Your task to perform on an android device: turn on location history Image 0: 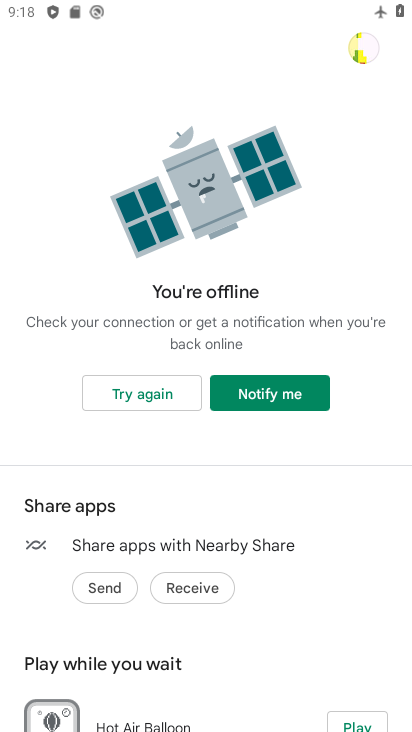
Step 0: press home button
Your task to perform on an android device: turn on location history Image 1: 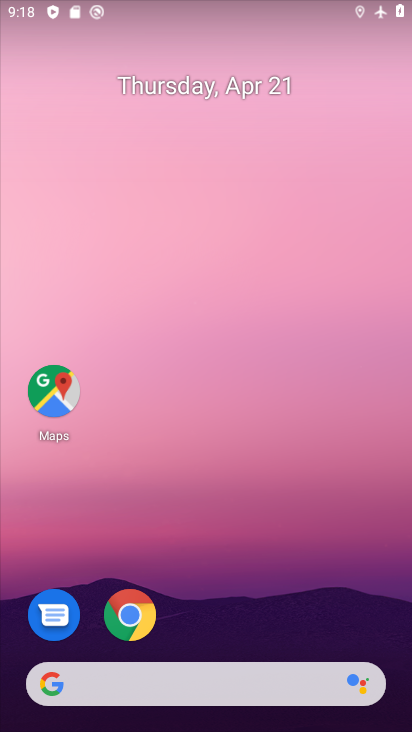
Step 1: drag from (199, 722) to (215, 228)
Your task to perform on an android device: turn on location history Image 2: 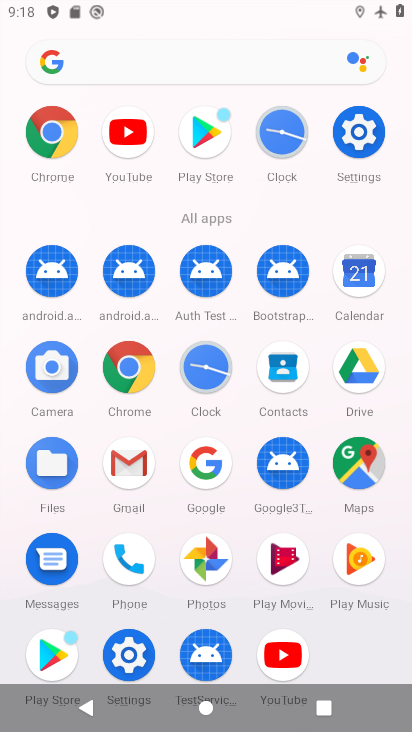
Step 2: click (365, 131)
Your task to perform on an android device: turn on location history Image 3: 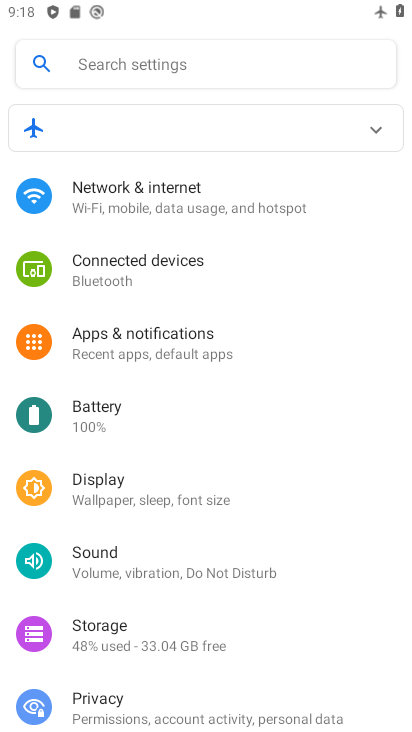
Step 3: drag from (143, 679) to (150, 326)
Your task to perform on an android device: turn on location history Image 4: 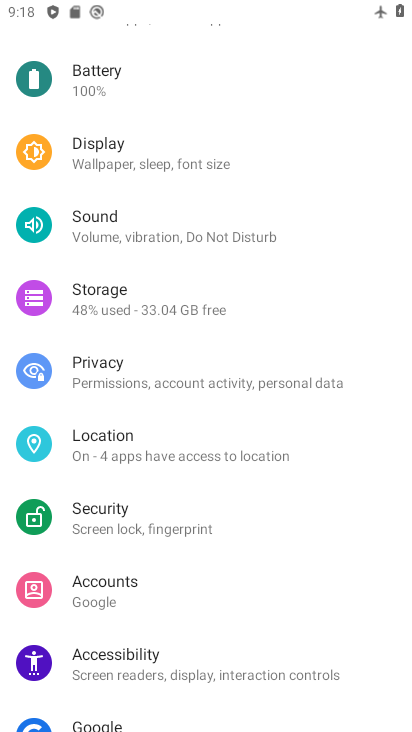
Step 4: click (98, 446)
Your task to perform on an android device: turn on location history Image 5: 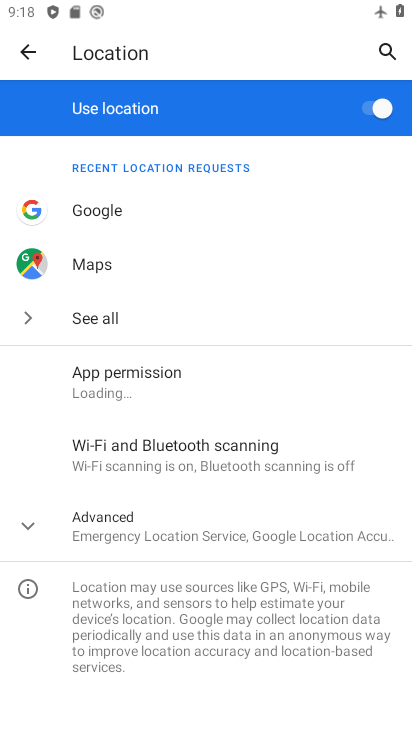
Step 5: click (111, 520)
Your task to perform on an android device: turn on location history Image 6: 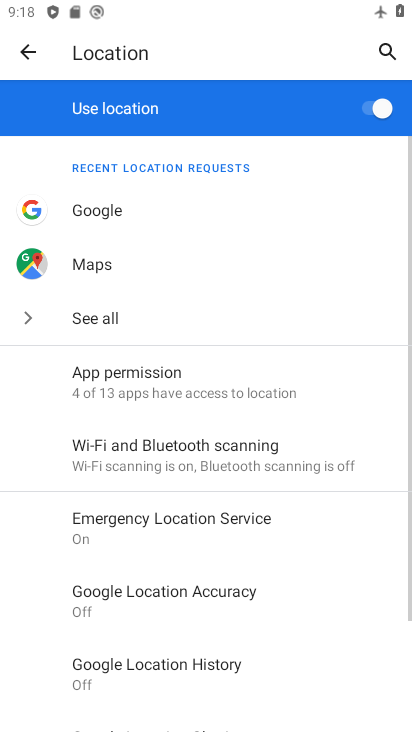
Step 6: drag from (189, 641) to (210, 368)
Your task to perform on an android device: turn on location history Image 7: 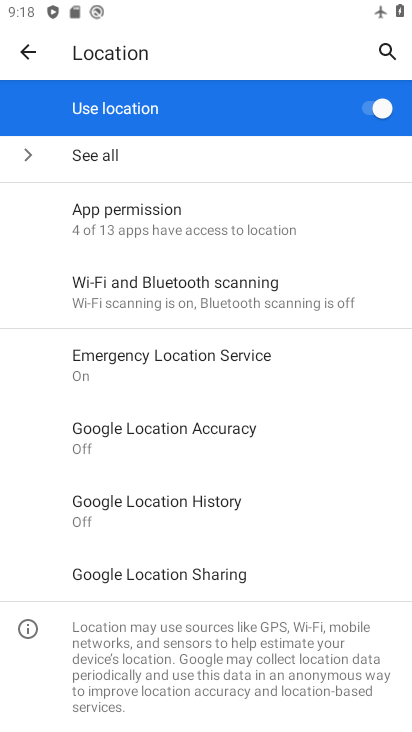
Step 7: click (137, 499)
Your task to perform on an android device: turn on location history Image 8: 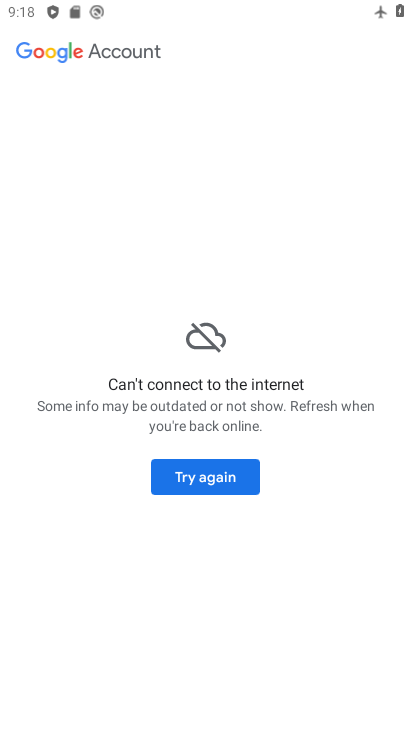
Step 8: click (198, 479)
Your task to perform on an android device: turn on location history Image 9: 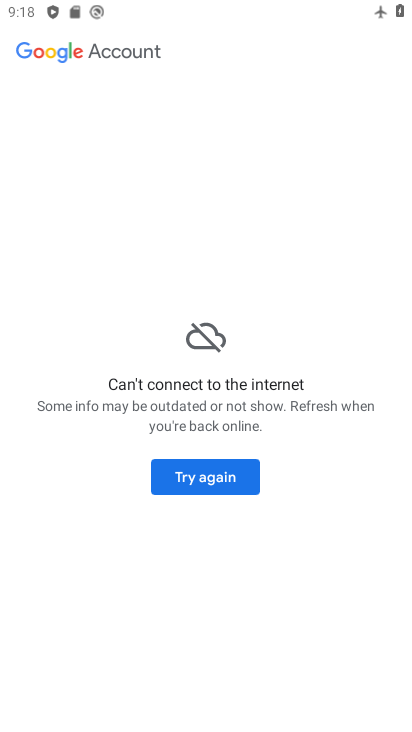
Step 9: task complete